Your task to perform on an android device: When is my next meeting? Image 0: 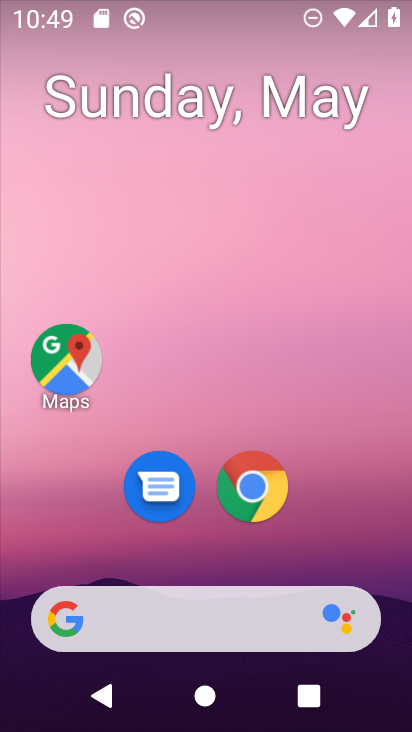
Step 0: drag from (339, 562) to (333, 166)
Your task to perform on an android device: When is my next meeting? Image 1: 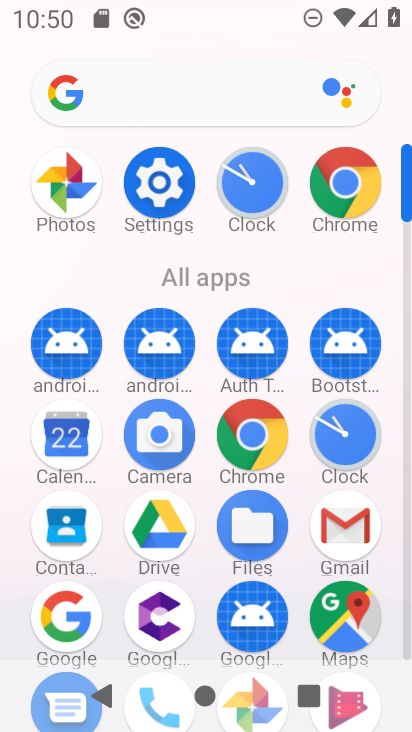
Step 1: click (80, 443)
Your task to perform on an android device: When is my next meeting? Image 2: 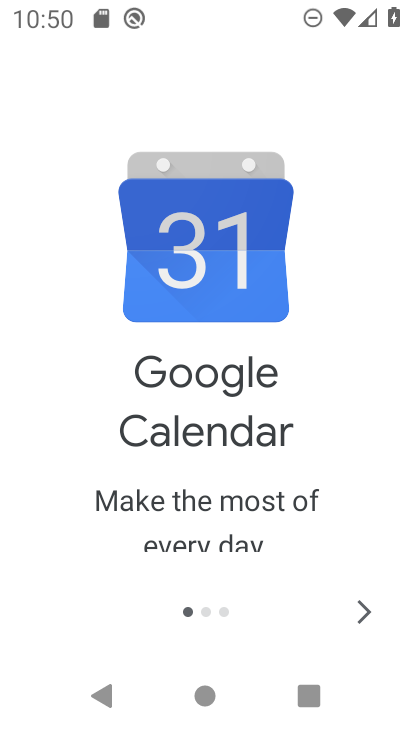
Step 2: click (369, 614)
Your task to perform on an android device: When is my next meeting? Image 3: 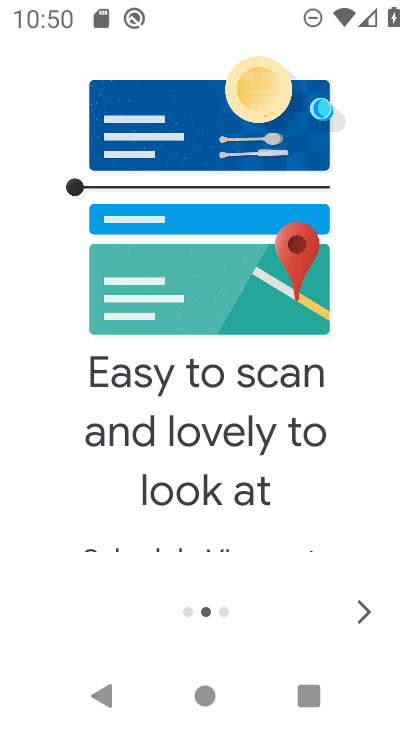
Step 3: click (369, 614)
Your task to perform on an android device: When is my next meeting? Image 4: 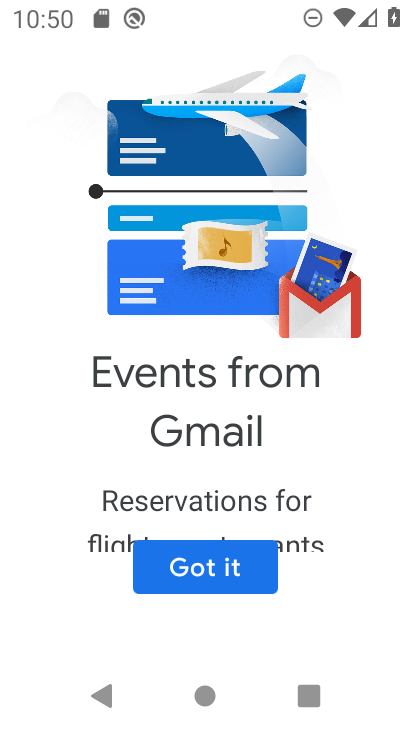
Step 4: click (241, 568)
Your task to perform on an android device: When is my next meeting? Image 5: 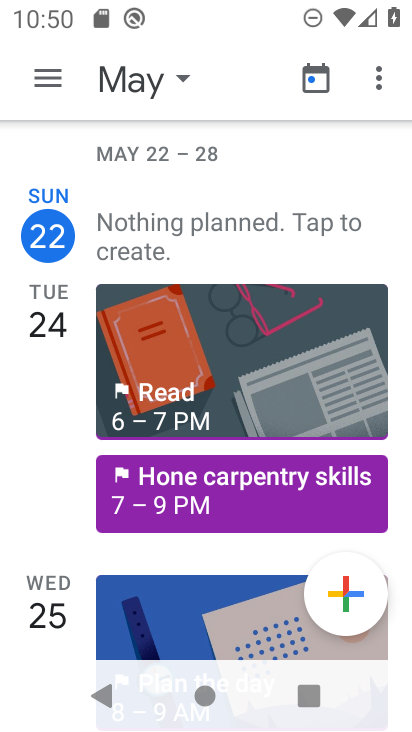
Step 5: click (43, 80)
Your task to perform on an android device: When is my next meeting? Image 6: 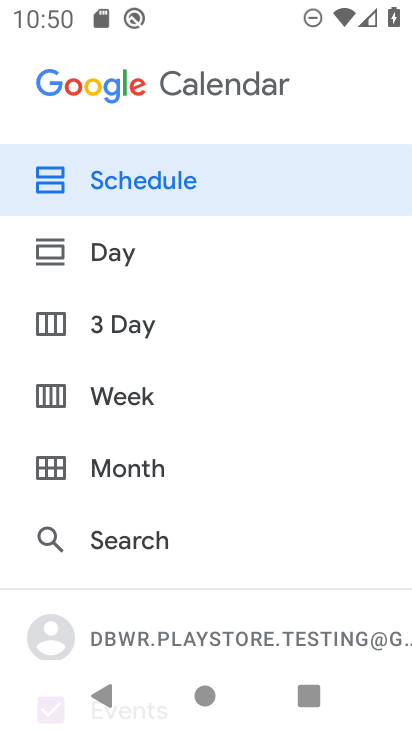
Step 6: click (117, 188)
Your task to perform on an android device: When is my next meeting? Image 7: 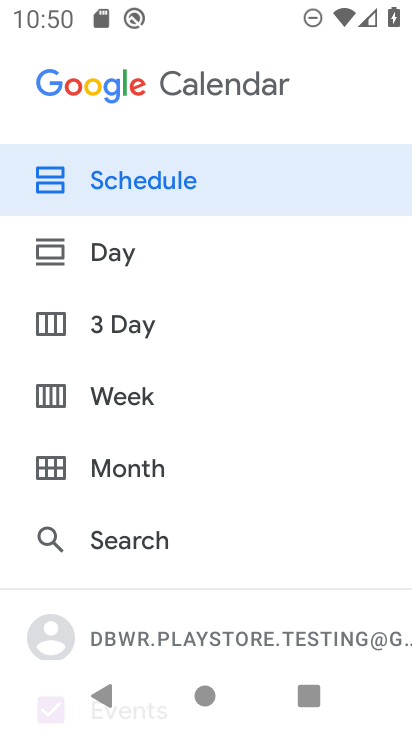
Step 7: click (117, 188)
Your task to perform on an android device: When is my next meeting? Image 8: 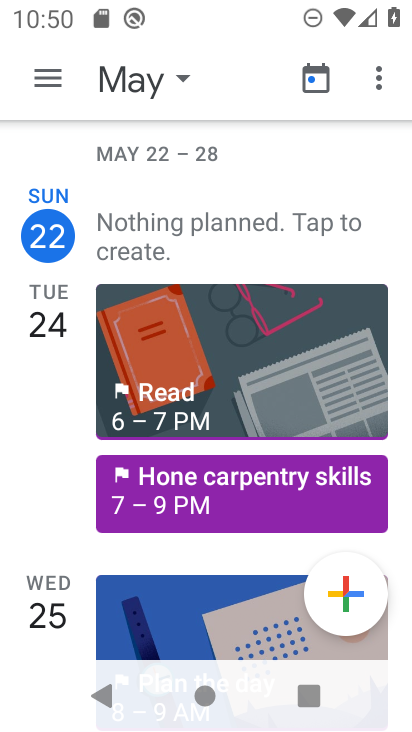
Step 8: click (167, 61)
Your task to perform on an android device: When is my next meeting? Image 9: 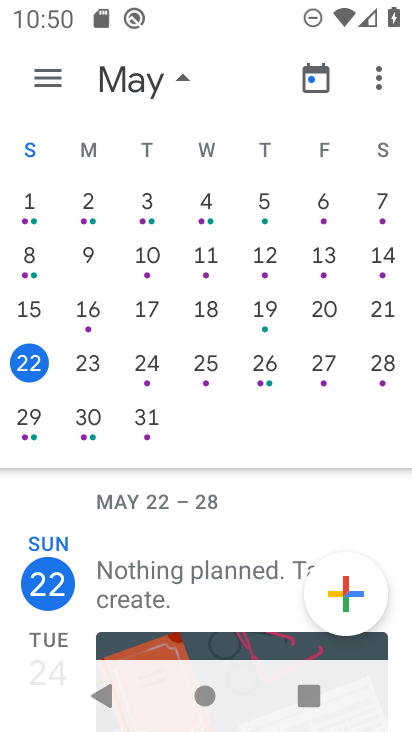
Step 9: click (92, 367)
Your task to perform on an android device: When is my next meeting? Image 10: 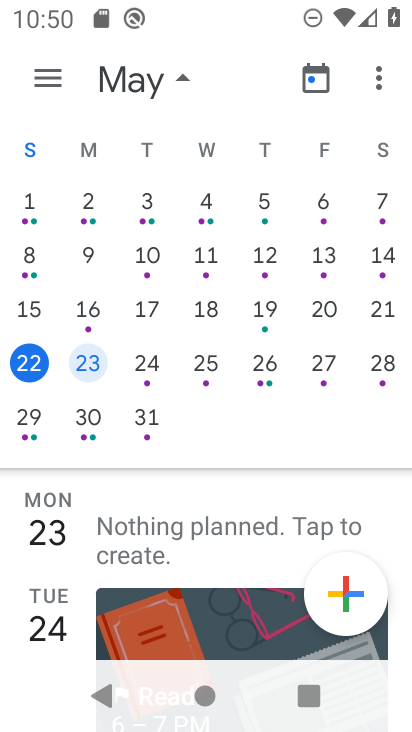
Step 10: click (174, 84)
Your task to perform on an android device: When is my next meeting? Image 11: 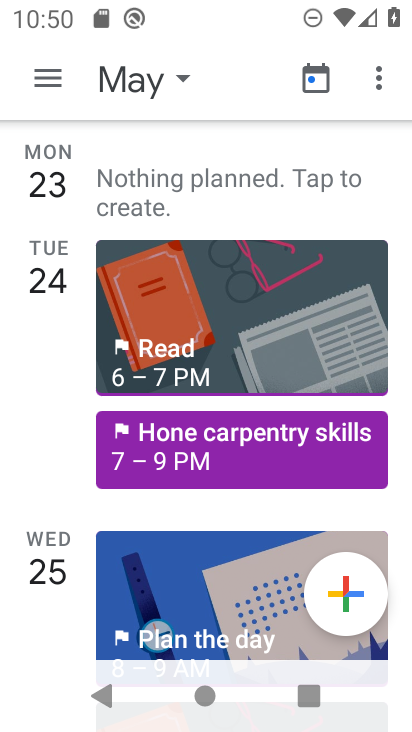
Step 11: task complete